Your task to perform on an android device: change text size in settings app Image 0: 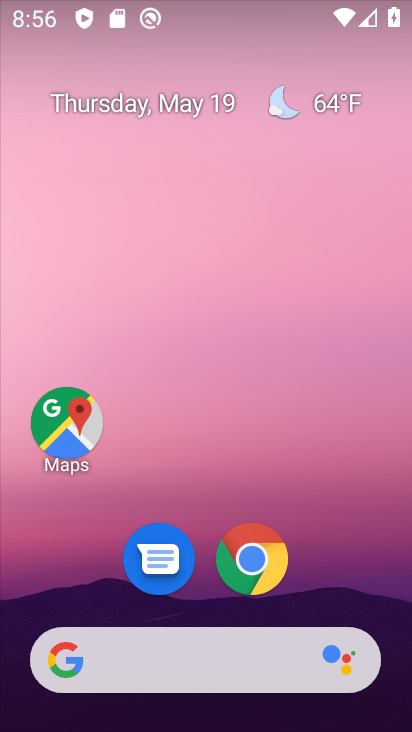
Step 0: drag from (210, 714) to (209, 187)
Your task to perform on an android device: change text size in settings app Image 1: 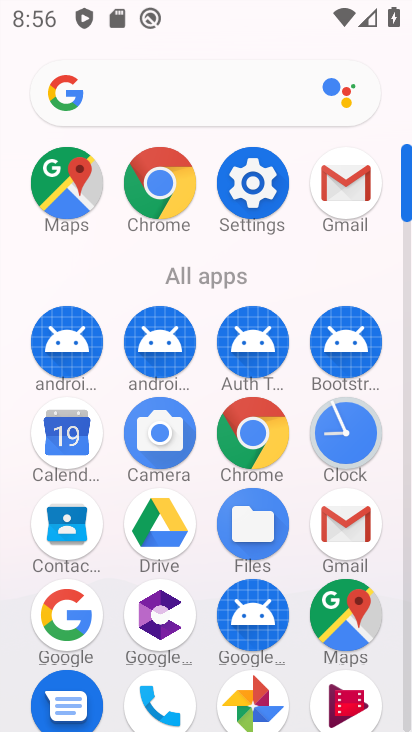
Step 1: click (246, 173)
Your task to perform on an android device: change text size in settings app Image 2: 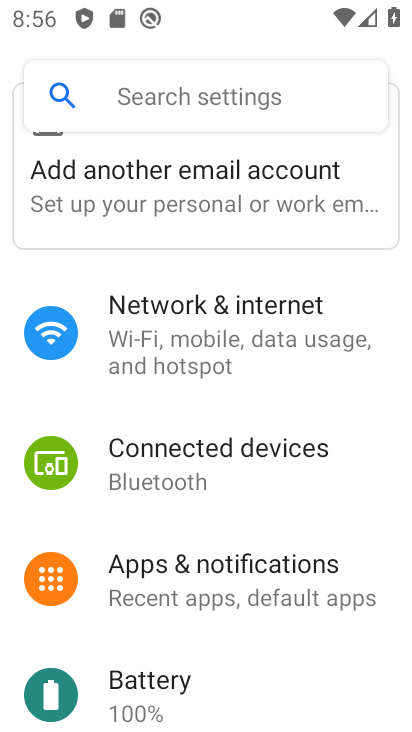
Step 2: drag from (204, 675) to (230, 410)
Your task to perform on an android device: change text size in settings app Image 3: 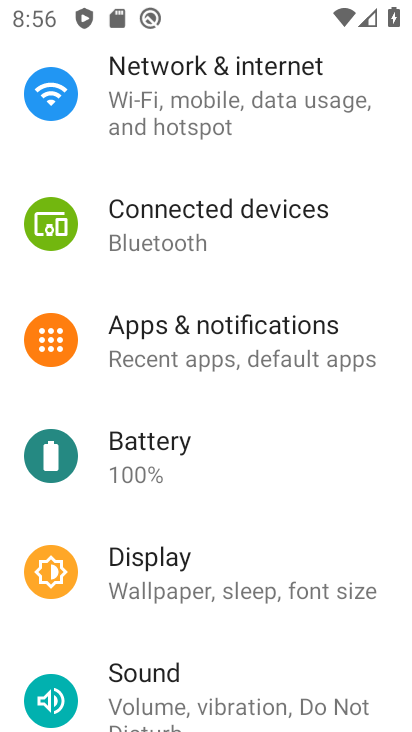
Step 3: click (228, 587)
Your task to perform on an android device: change text size in settings app Image 4: 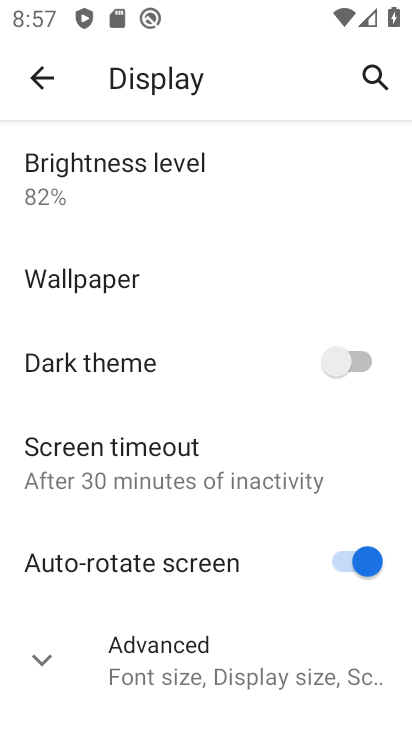
Step 4: click (232, 670)
Your task to perform on an android device: change text size in settings app Image 5: 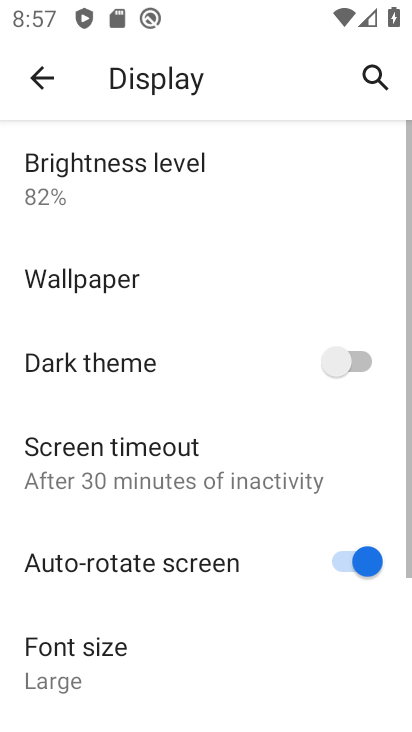
Step 5: drag from (236, 583) to (243, 302)
Your task to perform on an android device: change text size in settings app Image 6: 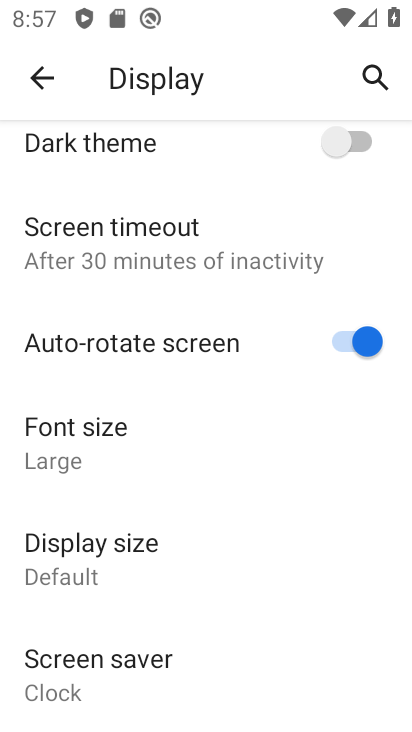
Step 6: click (58, 451)
Your task to perform on an android device: change text size in settings app Image 7: 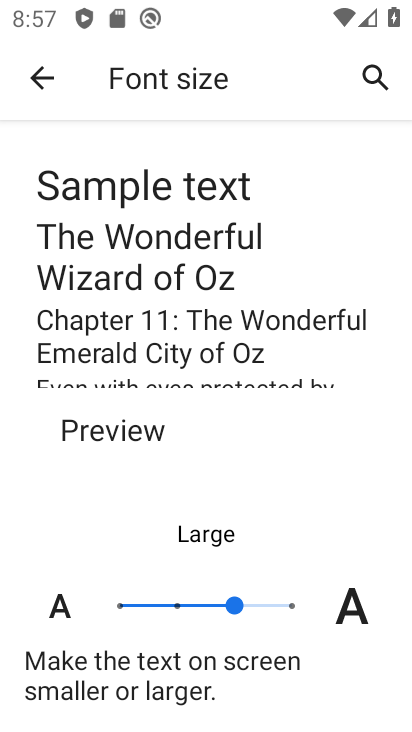
Step 7: click (175, 603)
Your task to perform on an android device: change text size in settings app Image 8: 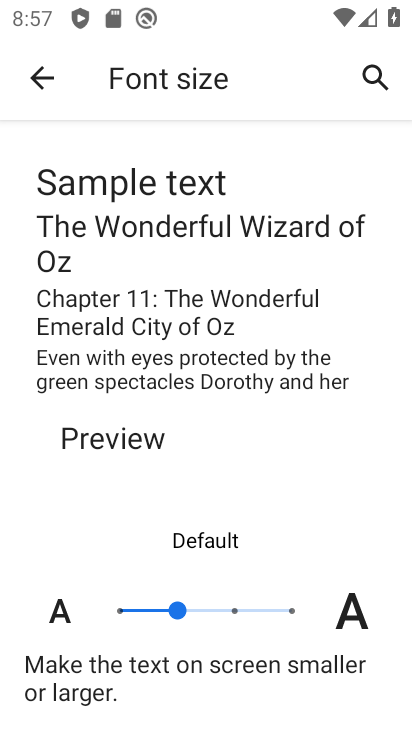
Step 8: task complete